Your task to perform on an android device: change notifications settings Image 0: 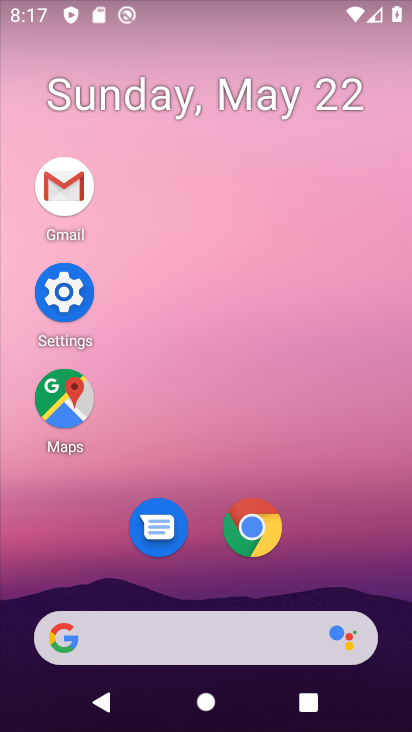
Step 0: click (72, 298)
Your task to perform on an android device: change notifications settings Image 1: 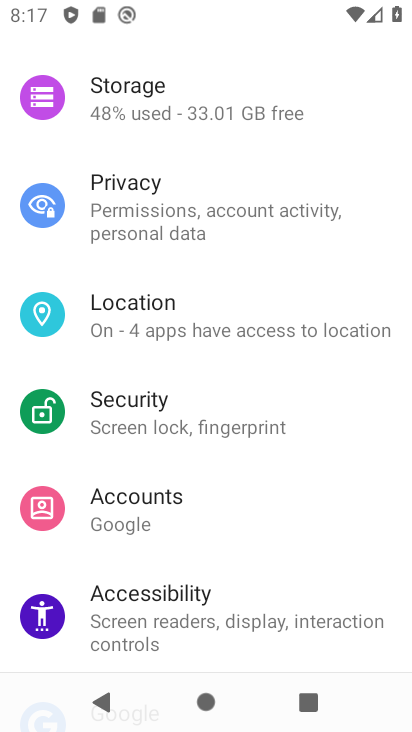
Step 1: drag from (227, 506) to (288, 102)
Your task to perform on an android device: change notifications settings Image 2: 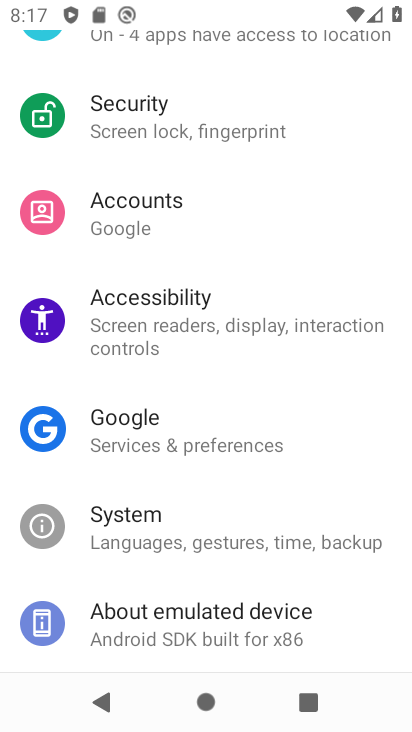
Step 2: drag from (269, 210) to (237, 636)
Your task to perform on an android device: change notifications settings Image 3: 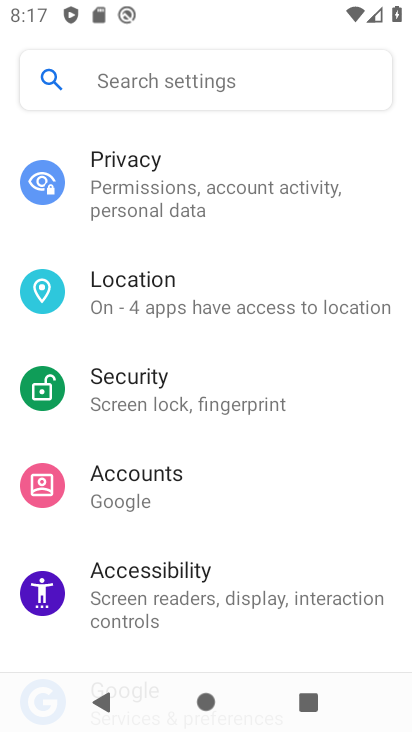
Step 3: drag from (263, 175) to (272, 527)
Your task to perform on an android device: change notifications settings Image 4: 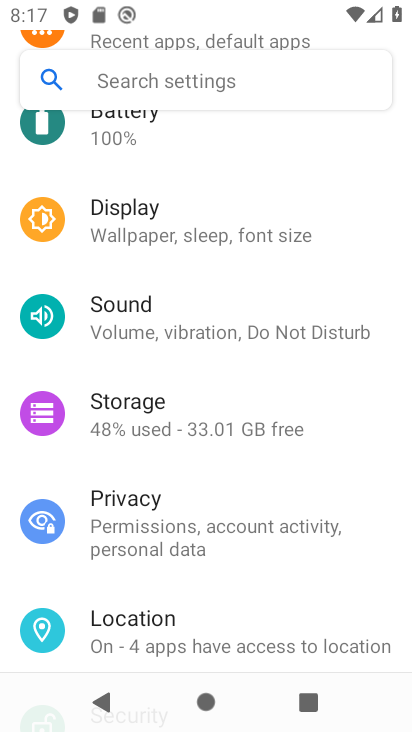
Step 4: drag from (284, 240) to (278, 717)
Your task to perform on an android device: change notifications settings Image 5: 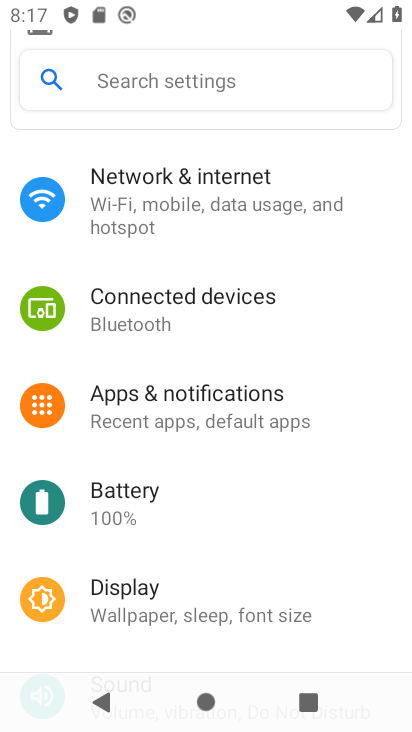
Step 5: click (253, 385)
Your task to perform on an android device: change notifications settings Image 6: 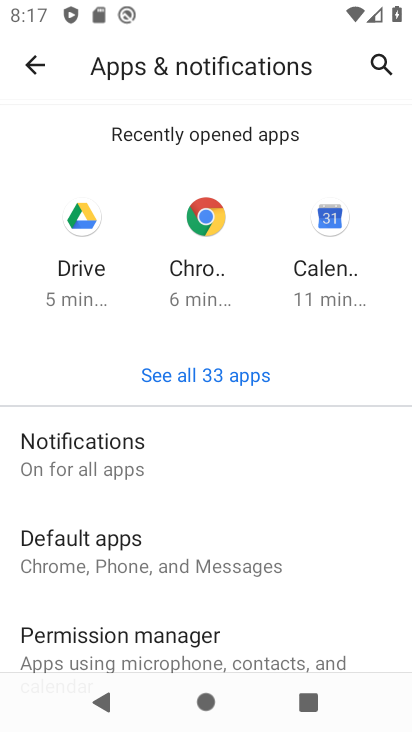
Step 6: click (270, 476)
Your task to perform on an android device: change notifications settings Image 7: 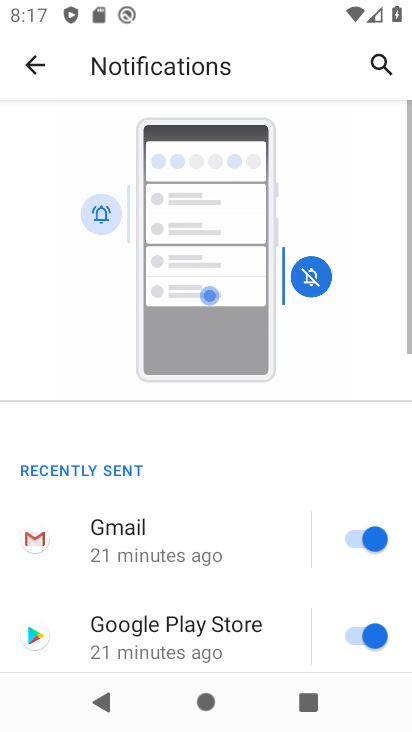
Step 7: drag from (286, 364) to (315, 151)
Your task to perform on an android device: change notifications settings Image 8: 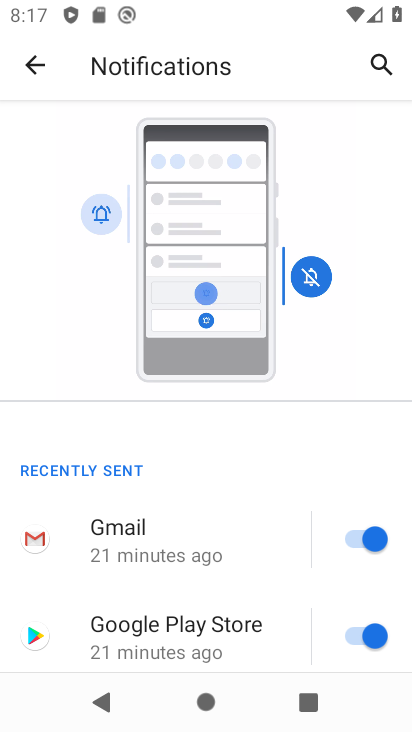
Step 8: drag from (250, 583) to (271, 140)
Your task to perform on an android device: change notifications settings Image 9: 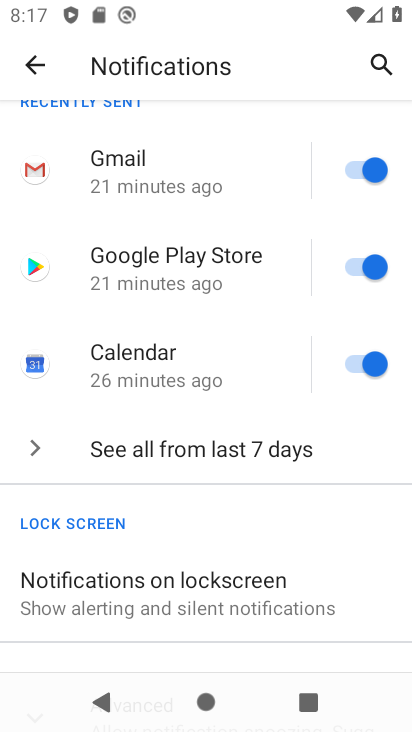
Step 9: drag from (200, 560) to (244, 267)
Your task to perform on an android device: change notifications settings Image 10: 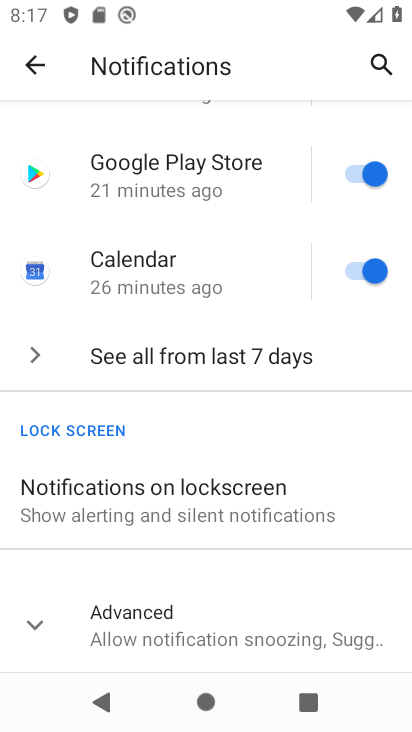
Step 10: click (164, 605)
Your task to perform on an android device: change notifications settings Image 11: 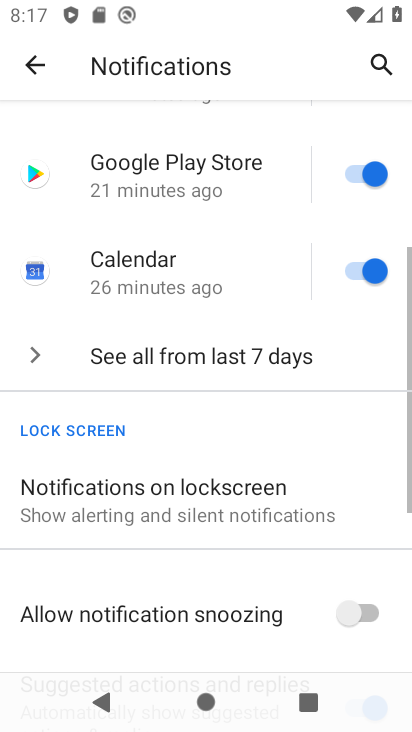
Step 11: drag from (165, 593) to (253, 243)
Your task to perform on an android device: change notifications settings Image 12: 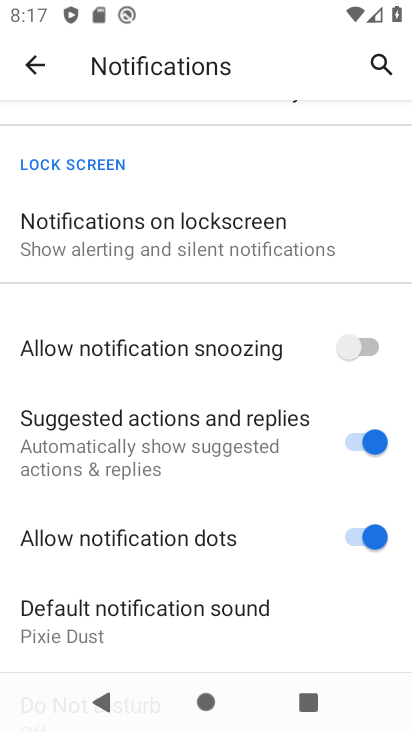
Step 12: click (365, 363)
Your task to perform on an android device: change notifications settings Image 13: 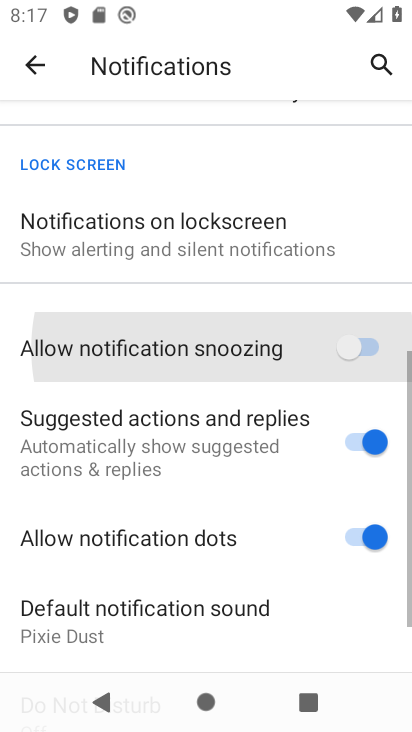
Step 13: click (363, 410)
Your task to perform on an android device: change notifications settings Image 14: 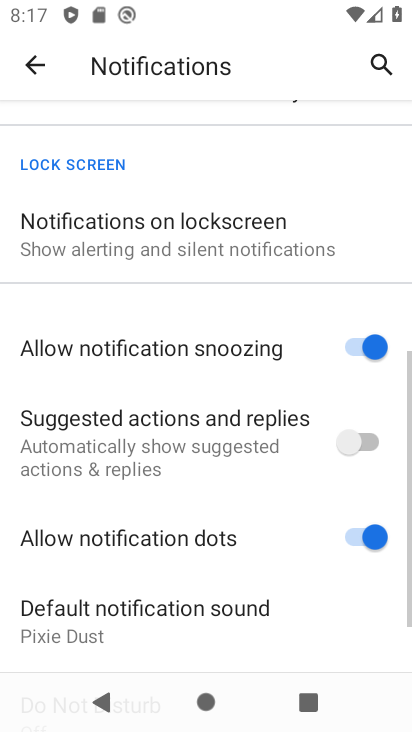
Step 14: click (376, 542)
Your task to perform on an android device: change notifications settings Image 15: 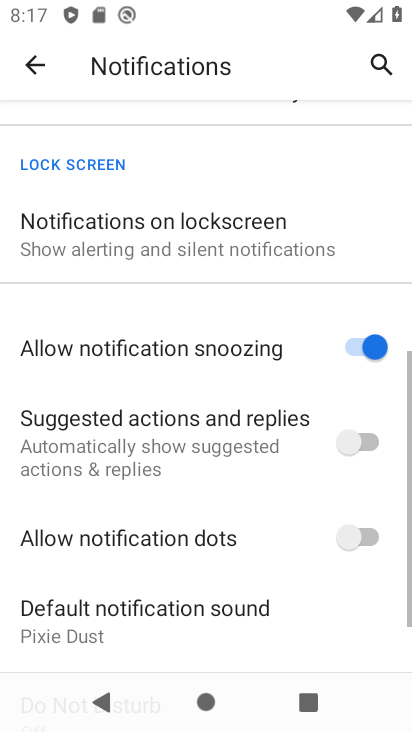
Step 15: task complete